Your task to perform on an android device: turn on translation in the chrome app Image 0: 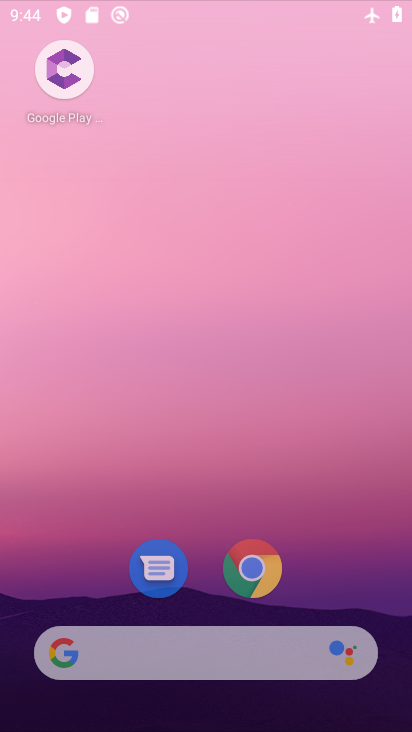
Step 0: click (208, 40)
Your task to perform on an android device: turn on translation in the chrome app Image 1: 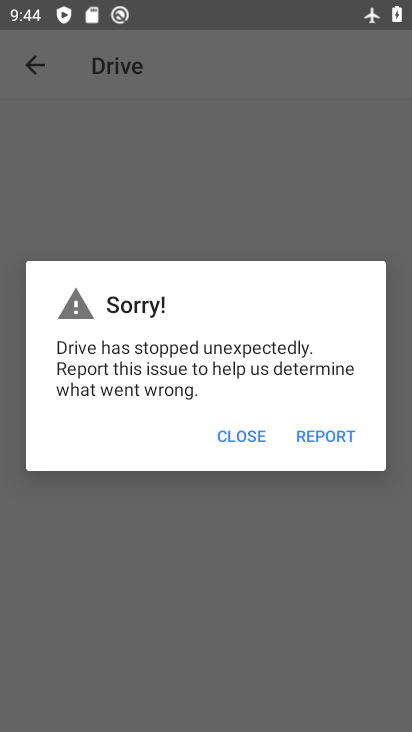
Step 1: press home button
Your task to perform on an android device: turn on translation in the chrome app Image 2: 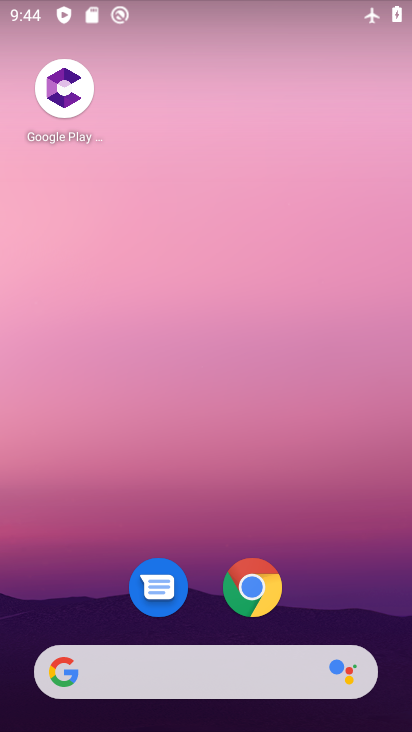
Step 2: click (265, 578)
Your task to perform on an android device: turn on translation in the chrome app Image 3: 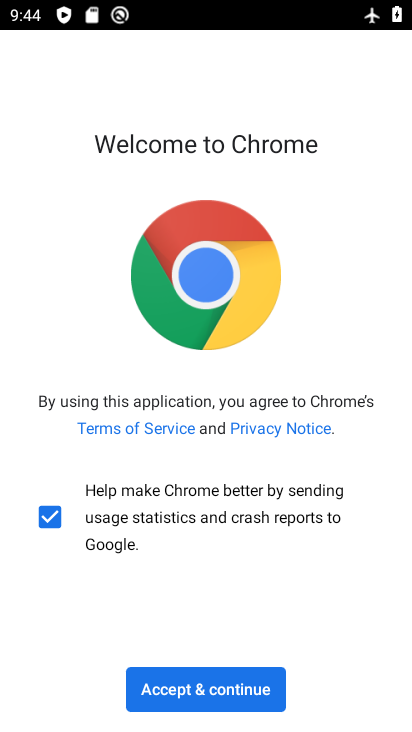
Step 3: click (272, 689)
Your task to perform on an android device: turn on translation in the chrome app Image 4: 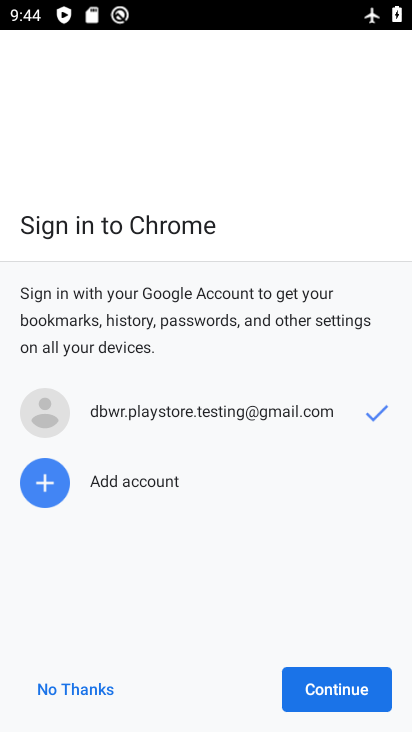
Step 4: click (311, 689)
Your task to perform on an android device: turn on translation in the chrome app Image 5: 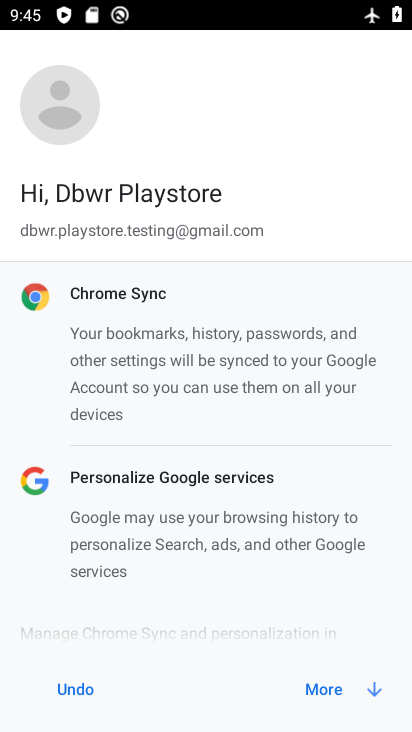
Step 5: click (311, 689)
Your task to perform on an android device: turn on translation in the chrome app Image 6: 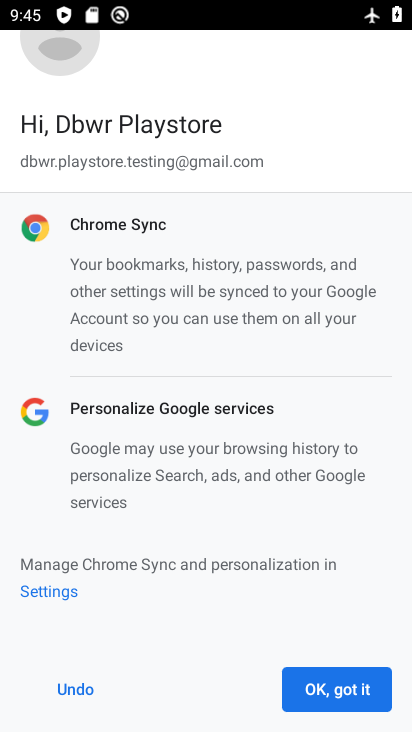
Step 6: click (311, 689)
Your task to perform on an android device: turn on translation in the chrome app Image 7: 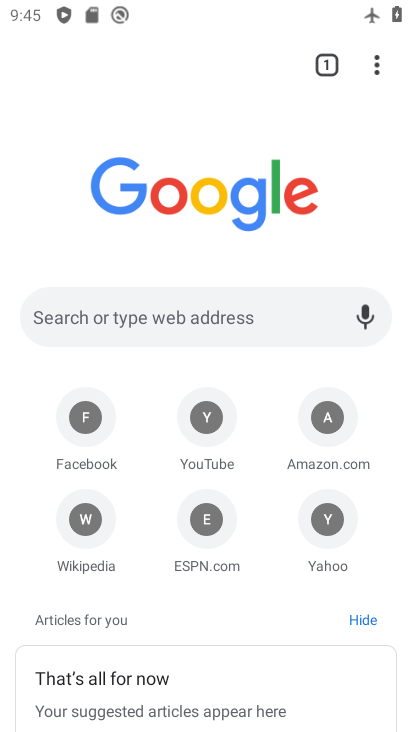
Step 7: click (375, 52)
Your task to perform on an android device: turn on translation in the chrome app Image 8: 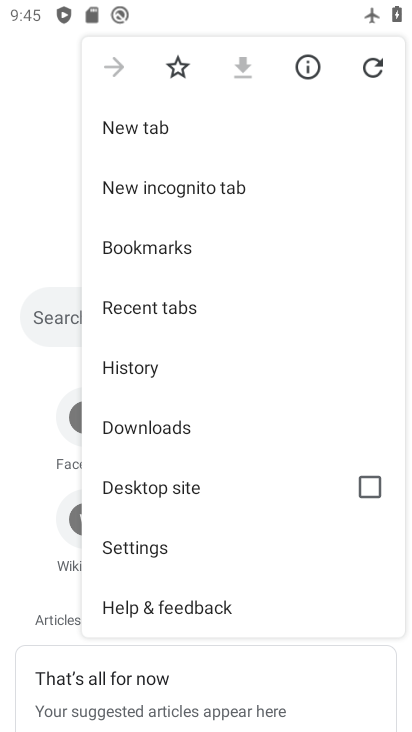
Step 8: click (236, 555)
Your task to perform on an android device: turn on translation in the chrome app Image 9: 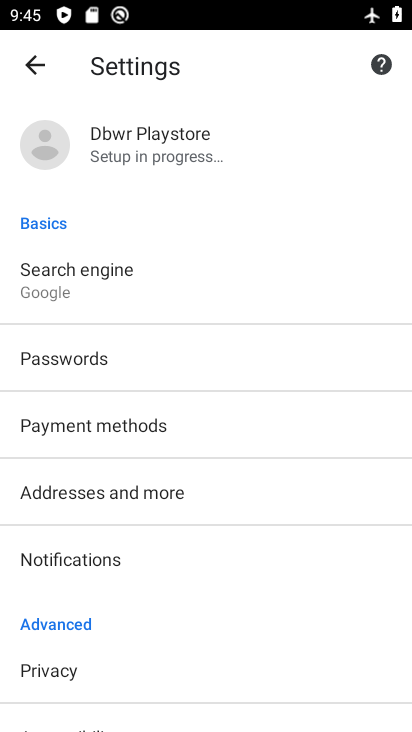
Step 9: drag from (245, 565) to (235, 306)
Your task to perform on an android device: turn on translation in the chrome app Image 10: 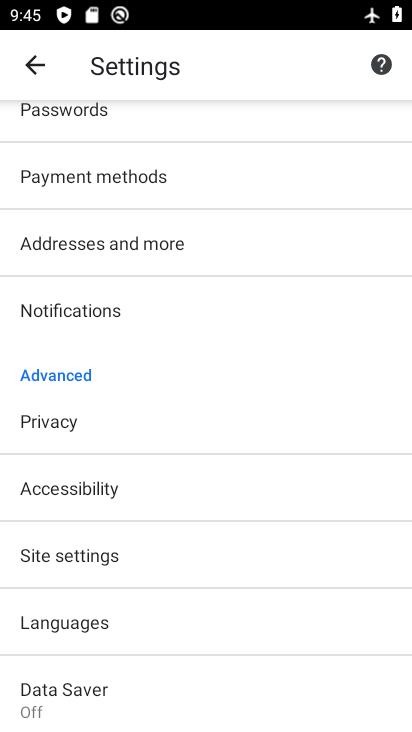
Step 10: click (187, 616)
Your task to perform on an android device: turn on translation in the chrome app Image 11: 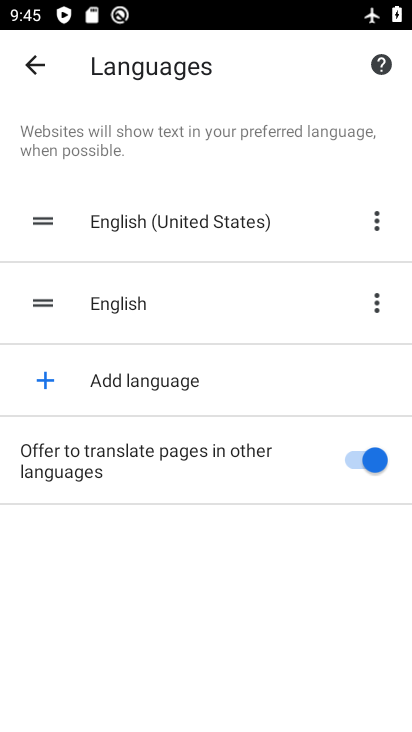
Step 11: task complete